Your task to perform on an android device: toggle sleep mode Image 0: 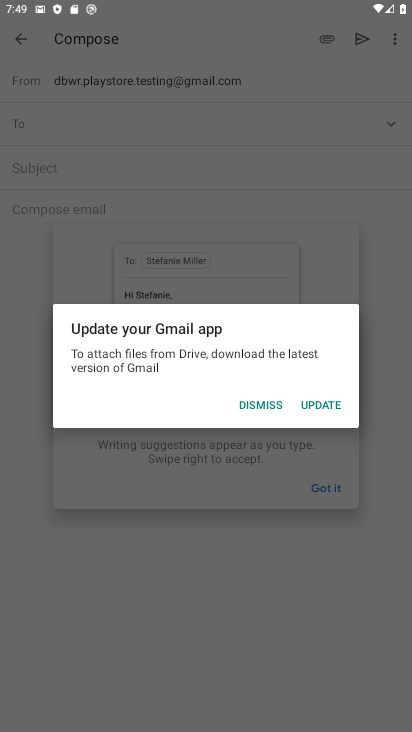
Step 0: press home button
Your task to perform on an android device: toggle sleep mode Image 1: 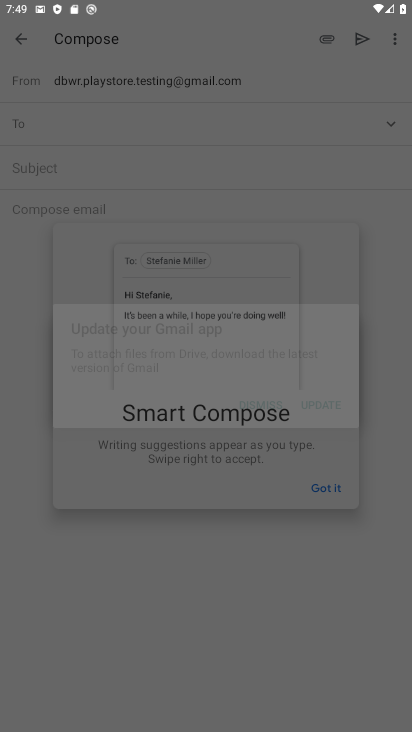
Step 1: press home button
Your task to perform on an android device: toggle sleep mode Image 2: 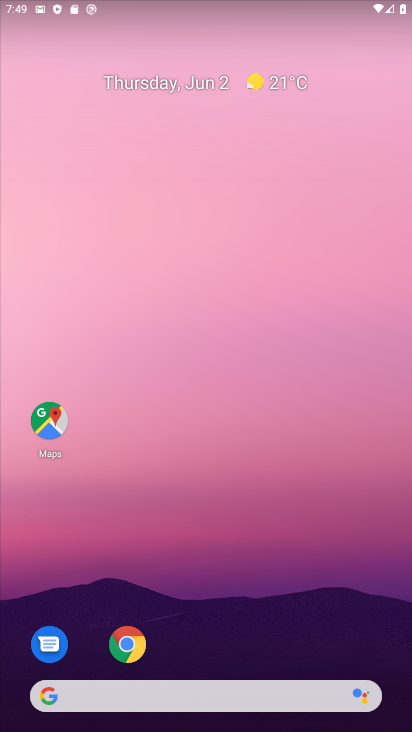
Step 2: press home button
Your task to perform on an android device: toggle sleep mode Image 3: 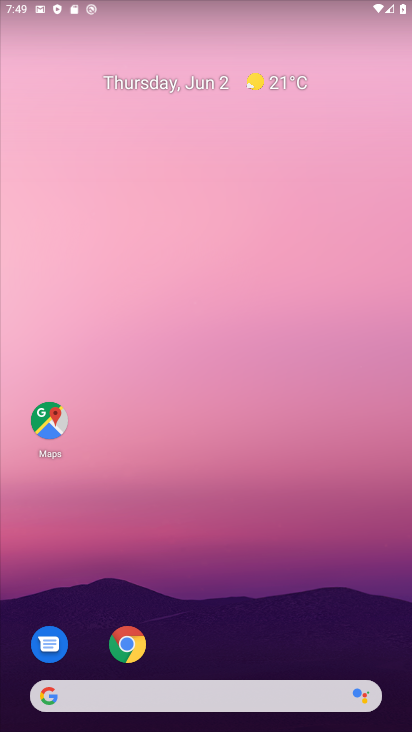
Step 3: drag from (200, 680) to (364, 131)
Your task to perform on an android device: toggle sleep mode Image 4: 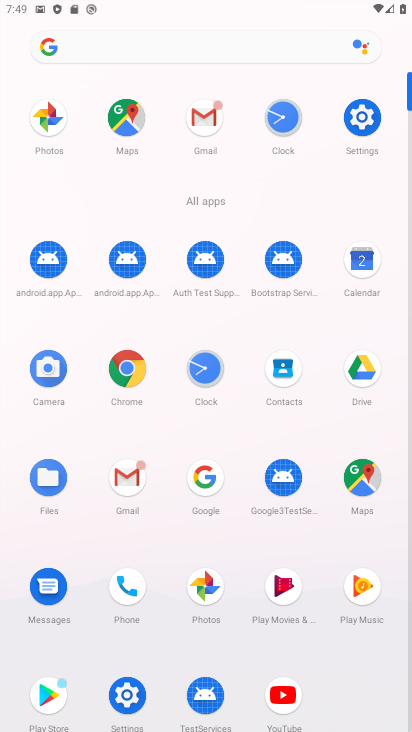
Step 4: click (367, 123)
Your task to perform on an android device: toggle sleep mode Image 5: 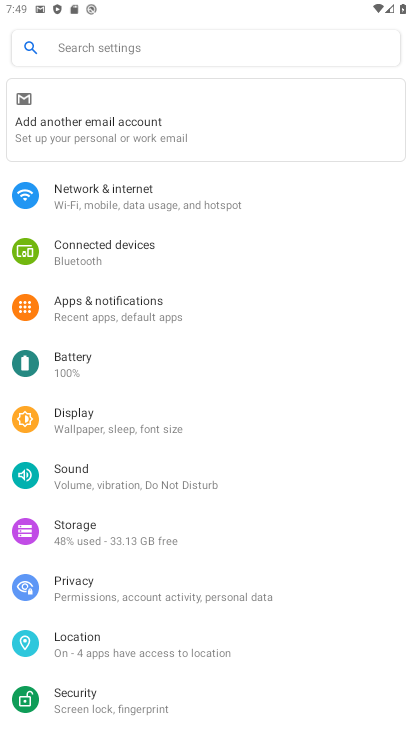
Step 5: click (137, 433)
Your task to perform on an android device: toggle sleep mode Image 6: 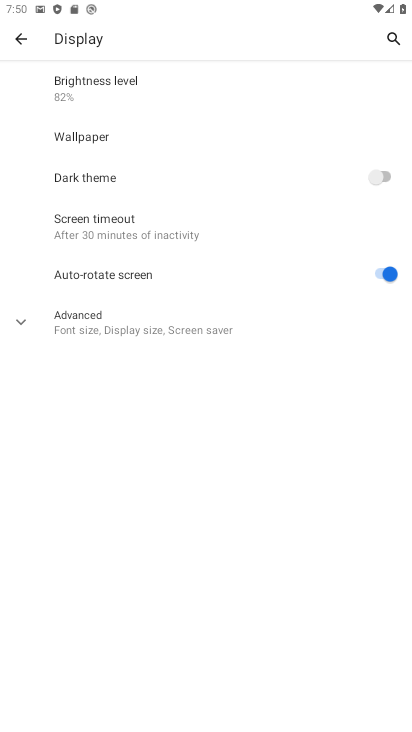
Step 6: click (231, 227)
Your task to perform on an android device: toggle sleep mode Image 7: 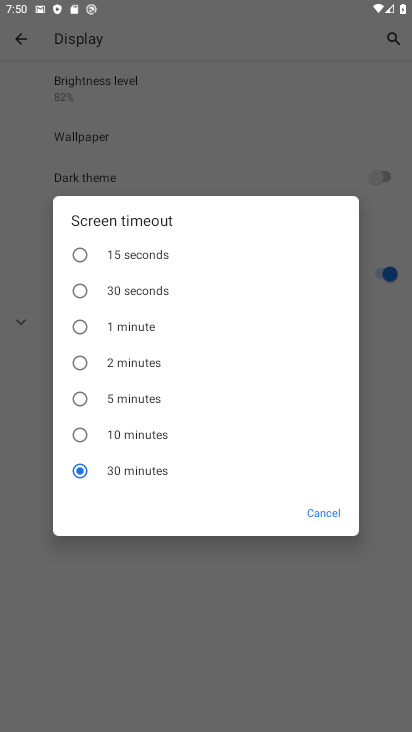
Step 7: click (137, 329)
Your task to perform on an android device: toggle sleep mode Image 8: 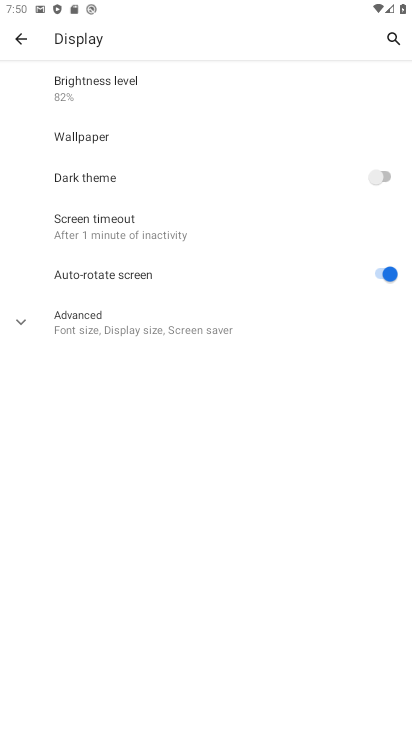
Step 8: task complete